Your task to perform on an android device: toggle javascript in the chrome app Image 0: 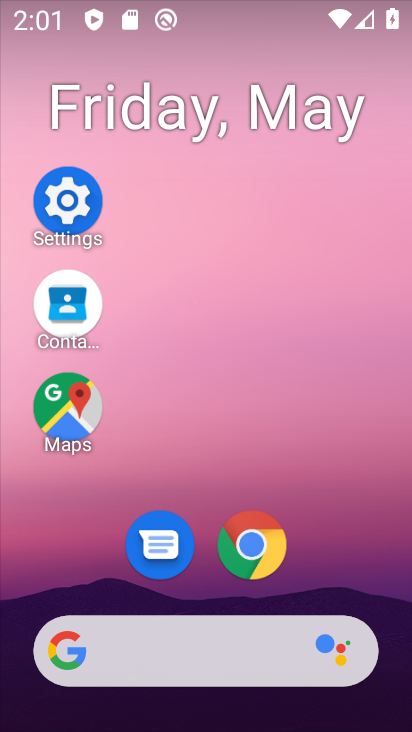
Step 0: click (253, 547)
Your task to perform on an android device: toggle javascript in the chrome app Image 1: 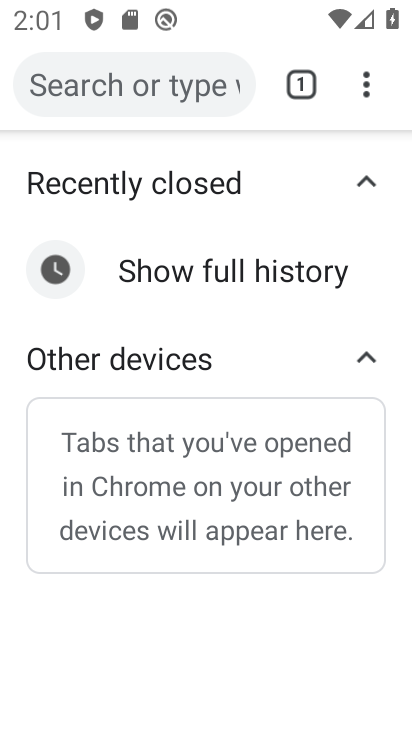
Step 1: click (367, 87)
Your task to perform on an android device: toggle javascript in the chrome app Image 2: 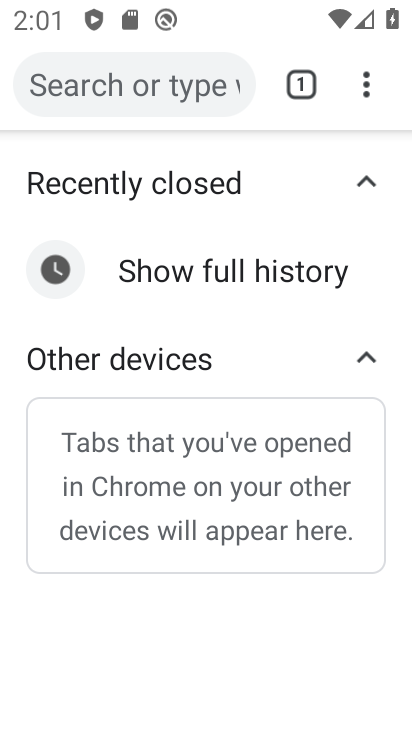
Step 2: click (365, 88)
Your task to perform on an android device: toggle javascript in the chrome app Image 3: 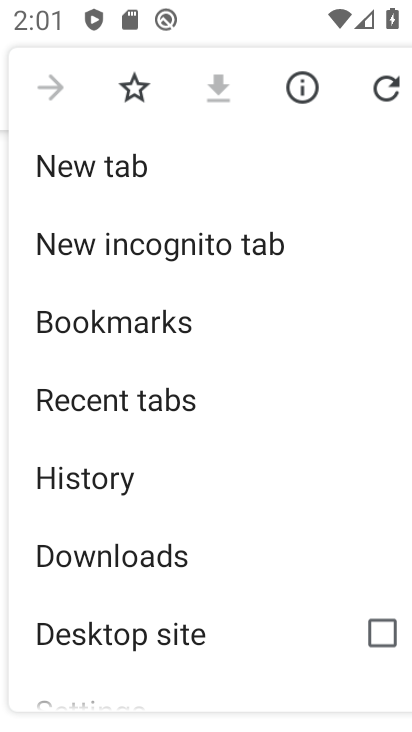
Step 3: drag from (191, 566) to (274, 137)
Your task to perform on an android device: toggle javascript in the chrome app Image 4: 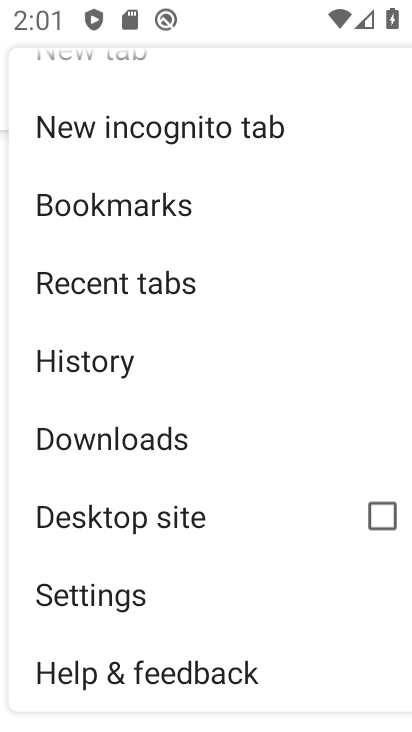
Step 4: click (175, 608)
Your task to perform on an android device: toggle javascript in the chrome app Image 5: 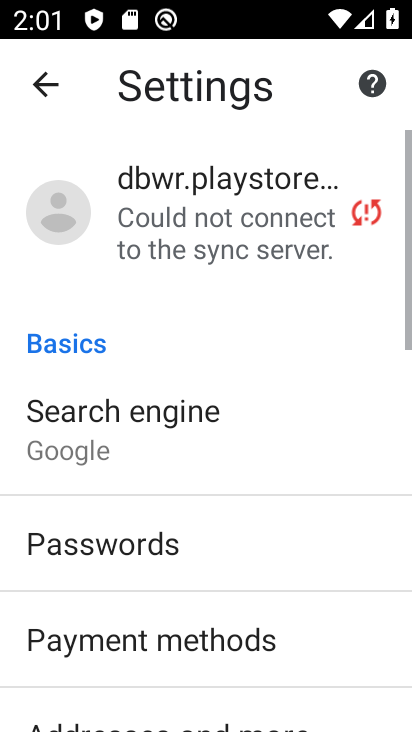
Step 5: drag from (175, 608) to (235, 168)
Your task to perform on an android device: toggle javascript in the chrome app Image 6: 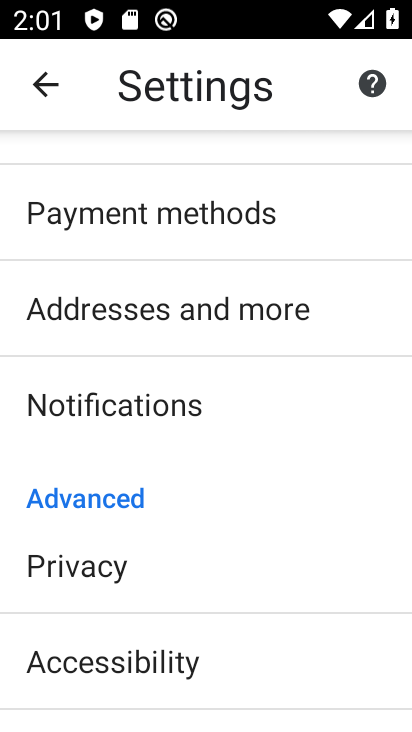
Step 6: drag from (213, 557) to (236, 113)
Your task to perform on an android device: toggle javascript in the chrome app Image 7: 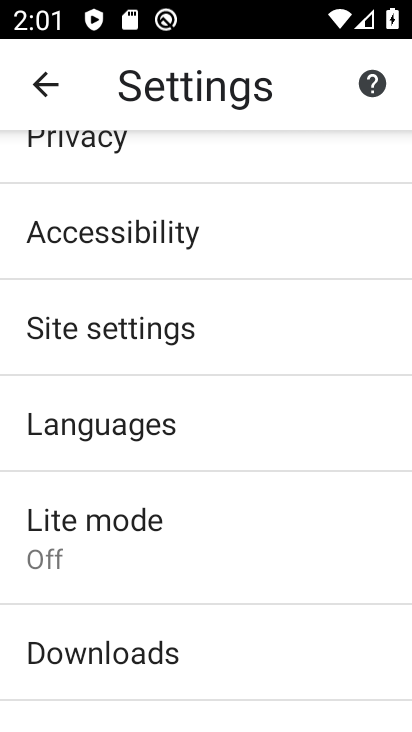
Step 7: drag from (199, 520) to (237, 179)
Your task to perform on an android device: toggle javascript in the chrome app Image 8: 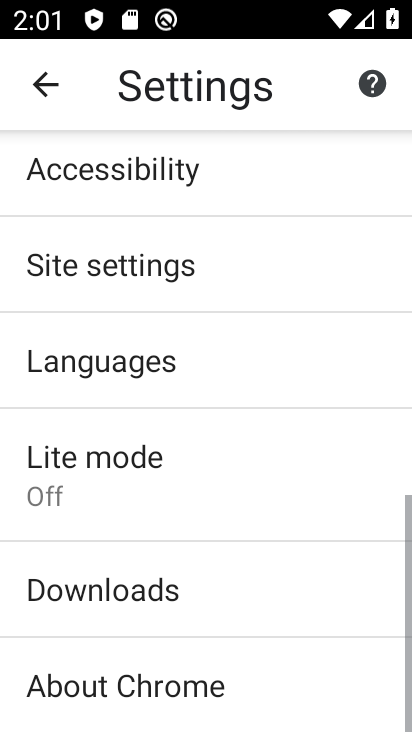
Step 8: drag from (239, 174) to (259, 431)
Your task to perform on an android device: toggle javascript in the chrome app Image 9: 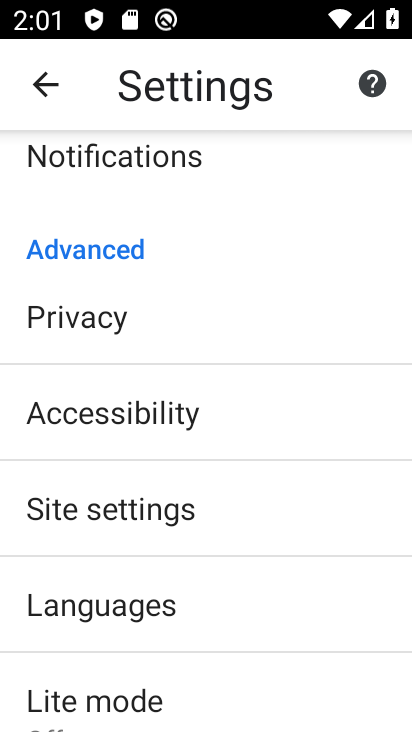
Step 9: click (209, 487)
Your task to perform on an android device: toggle javascript in the chrome app Image 10: 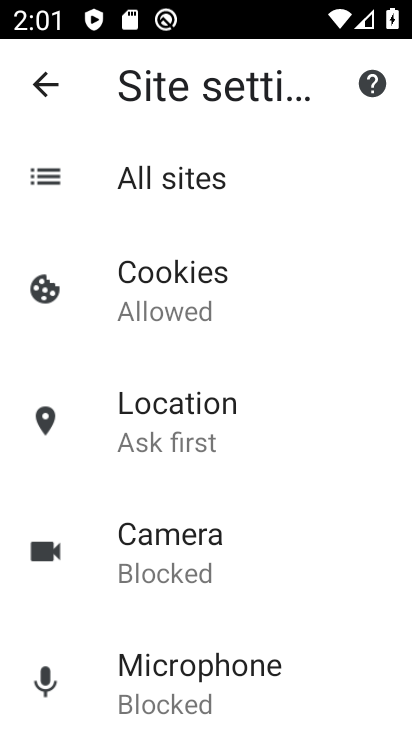
Step 10: drag from (314, 632) to (335, 260)
Your task to perform on an android device: toggle javascript in the chrome app Image 11: 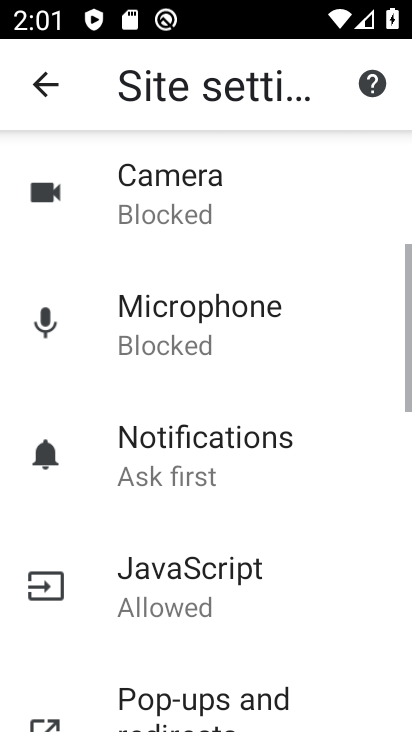
Step 11: drag from (309, 542) to (303, 204)
Your task to perform on an android device: toggle javascript in the chrome app Image 12: 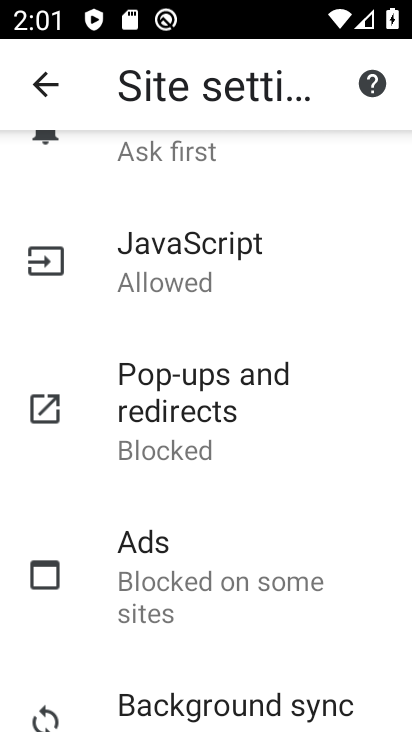
Step 12: drag from (284, 562) to (331, 244)
Your task to perform on an android device: toggle javascript in the chrome app Image 13: 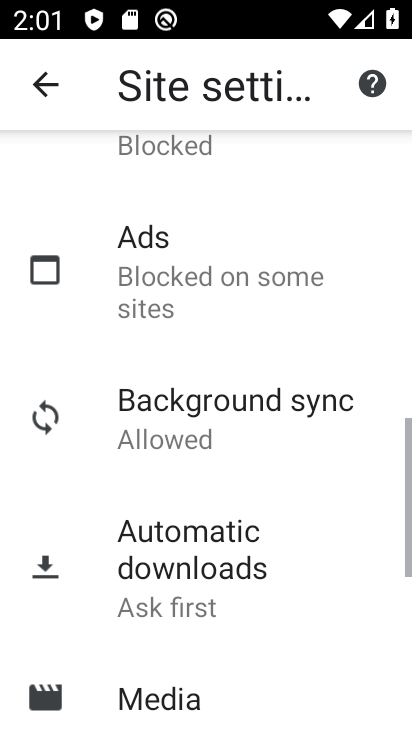
Step 13: drag from (335, 231) to (309, 632)
Your task to perform on an android device: toggle javascript in the chrome app Image 14: 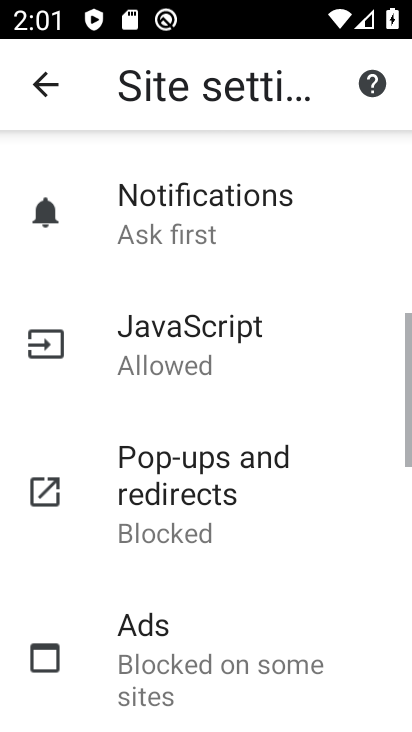
Step 14: click (300, 367)
Your task to perform on an android device: toggle javascript in the chrome app Image 15: 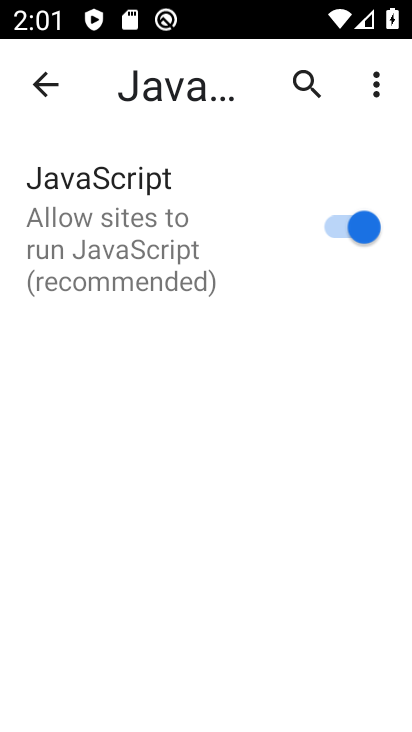
Step 15: click (350, 230)
Your task to perform on an android device: toggle javascript in the chrome app Image 16: 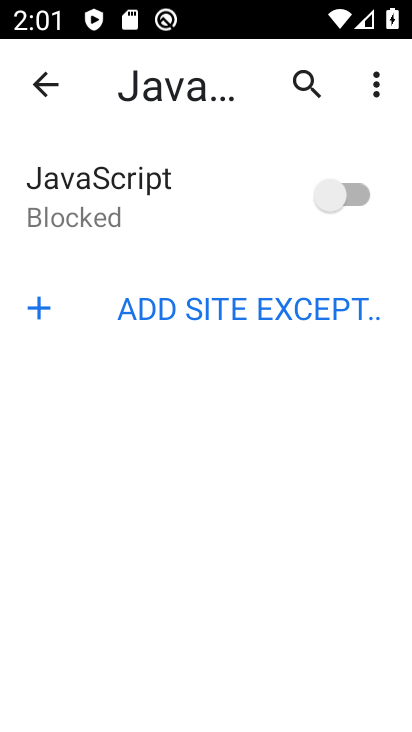
Step 16: task complete